Your task to perform on an android device: Go to ESPN.com Image 0: 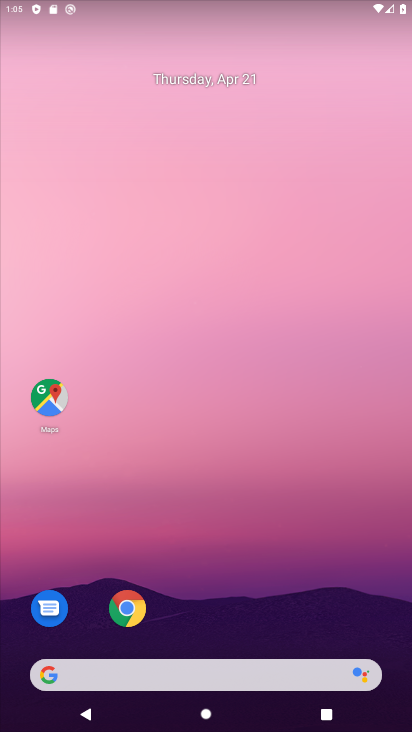
Step 0: drag from (292, 449) to (312, 202)
Your task to perform on an android device: Go to ESPN.com Image 1: 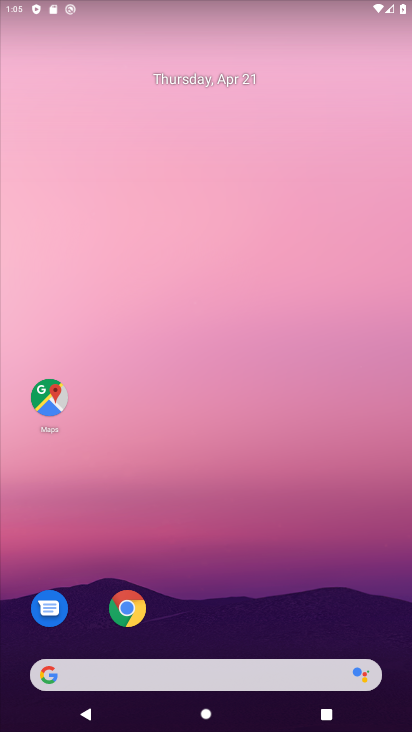
Step 1: drag from (220, 590) to (219, 153)
Your task to perform on an android device: Go to ESPN.com Image 2: 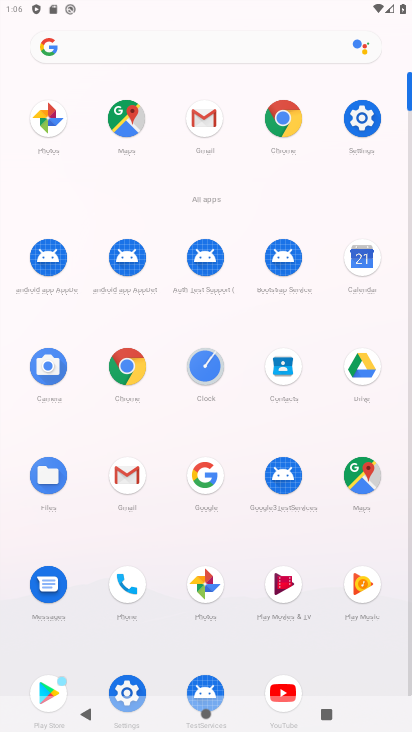
Step 2: click (132, 364)
Your task to perform on an android device: Go to ESPN.com Image 3: 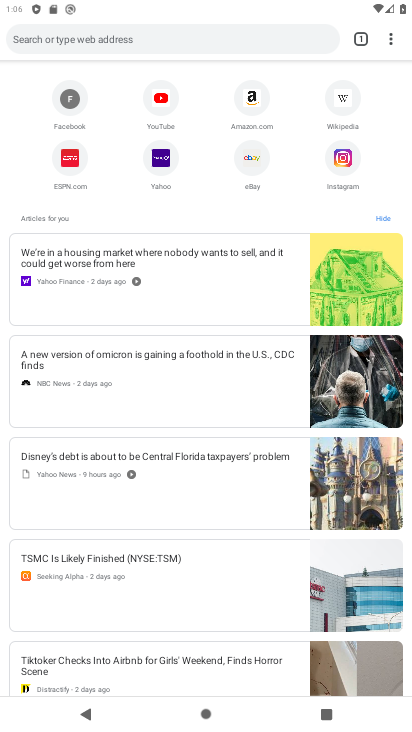
Step 3: click (66, 160)
Your task to perform on an android device: Go to ESPN.com Image 4: 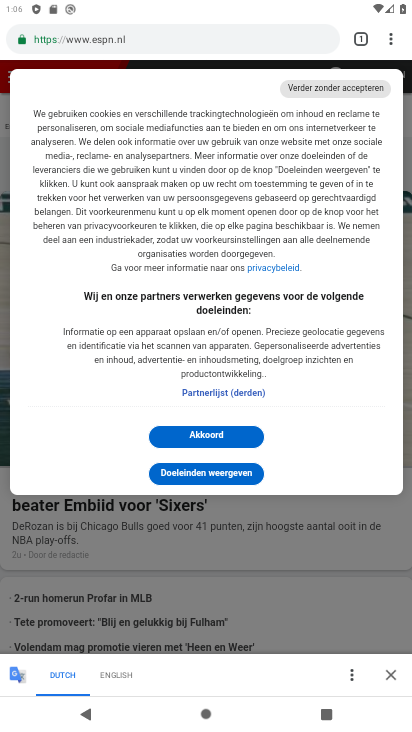
Step 4: task complete